Your task to perform on an android device: find photos in the google photos app Image 0: 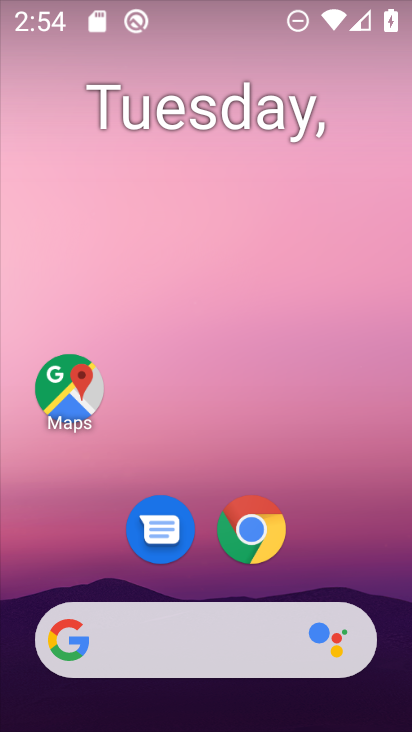
Step 0: drag from (249, 395) to (281, 96)
Your task to perform on an android device: find photos in the google photos app Image 1: 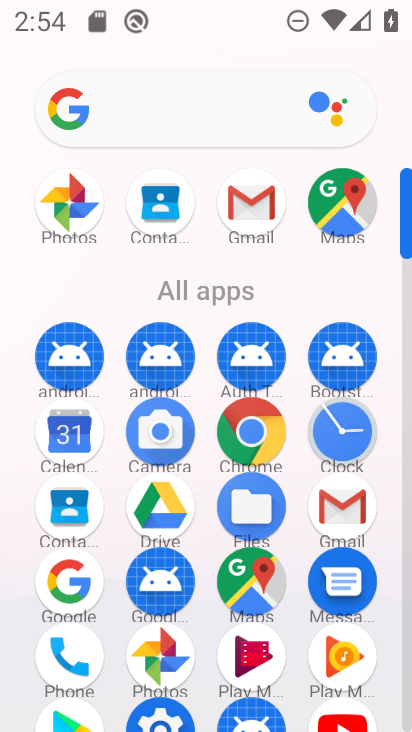
Step 1: click (162, 664)
Your task to perform on an android device: find photos in the google photos app Image 2: 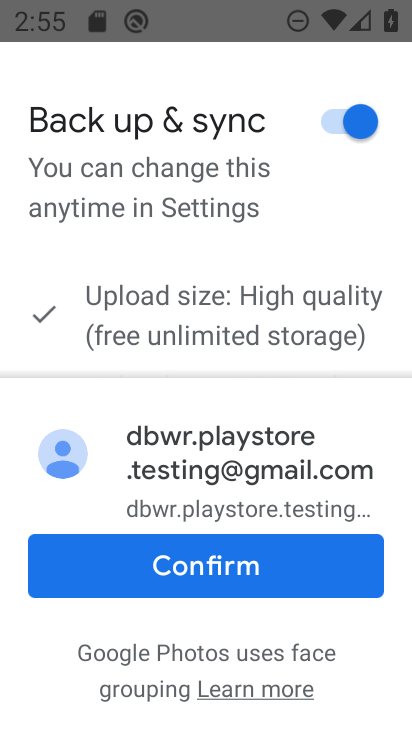
Step 2: click (181, 565)
Your task to perform on an android device: find photos in the google photos app Image 3: 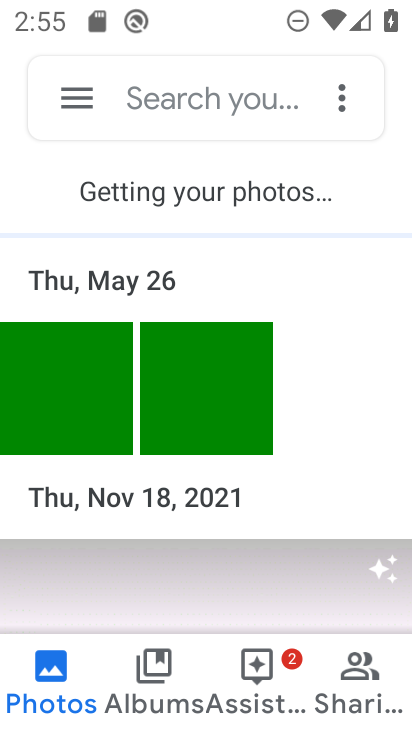
Step 3: click (58, 675)
Your task to perform on an android device: find photos in the google photos app Image 4: 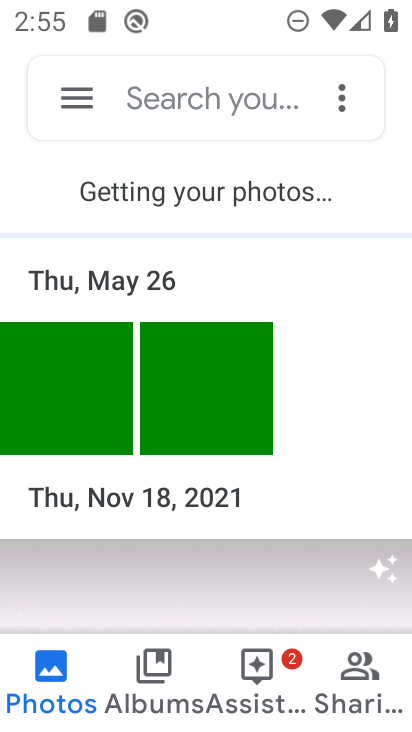
Step 4: task complete